Your task to perform on an android device: See recent photos Image 0: 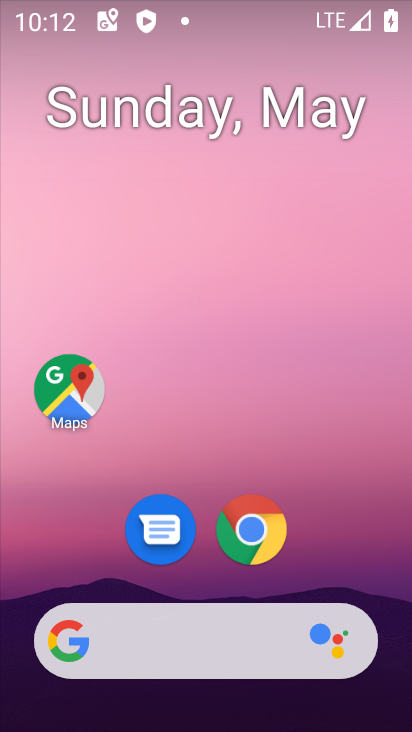
Step 0: drag from (367, 549) to (315, 194)
Your task to perform on an android device: See recent photos Image 1: 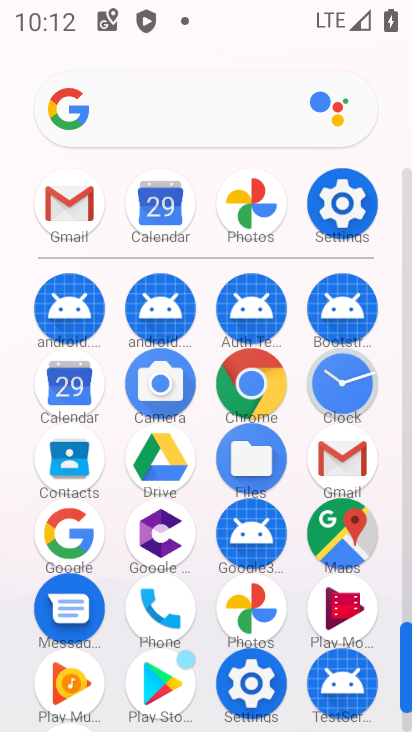
Step 1: click (253, 220)
Your task to perform on an android device: See recent photos Image 2: 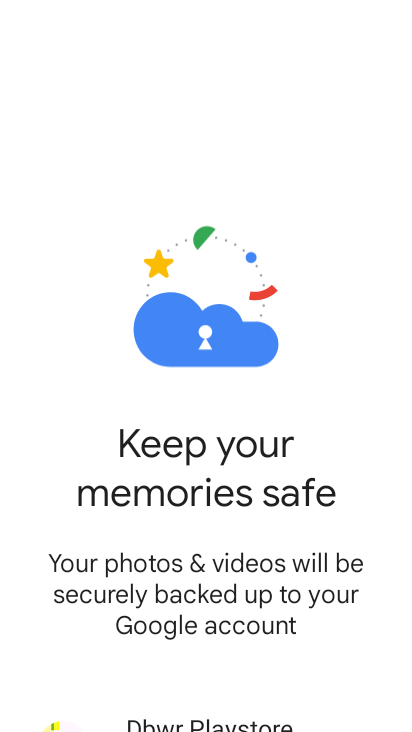
Step 2: task complete